Your task to perform on an android device: add a label to a message in the gmail app Image 0: 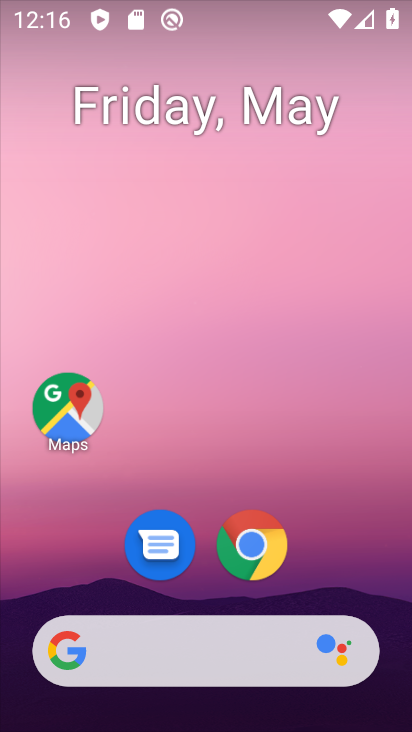
Step 0: drag from (346, 569) to (319, 99)
Your task to perform on an android device: add a label to a message in the gmail app Image 1: 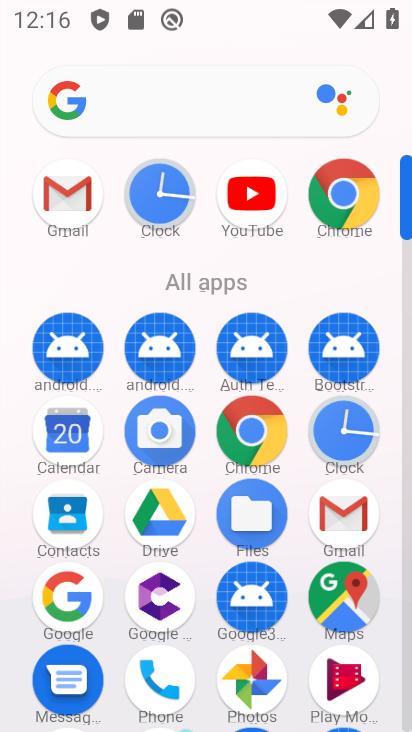
Step 1: click (64, 210)
Your task to perform on an android device: add a label to a message in the gmail app Image 2: 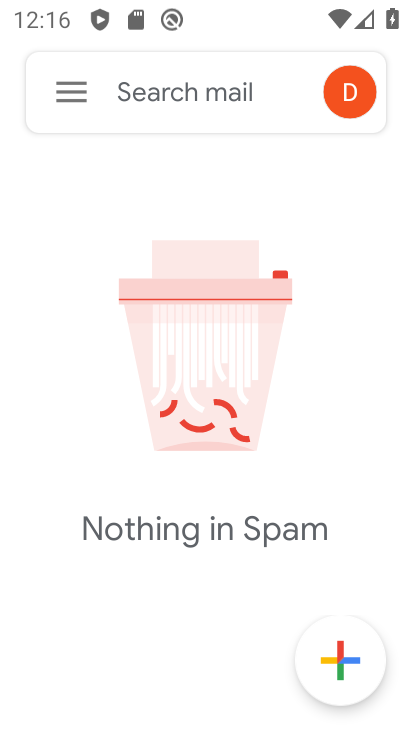
Step 2: click (43, 89)
Your task to perform on an android device: add a label to a message in the gmail app Image 3: 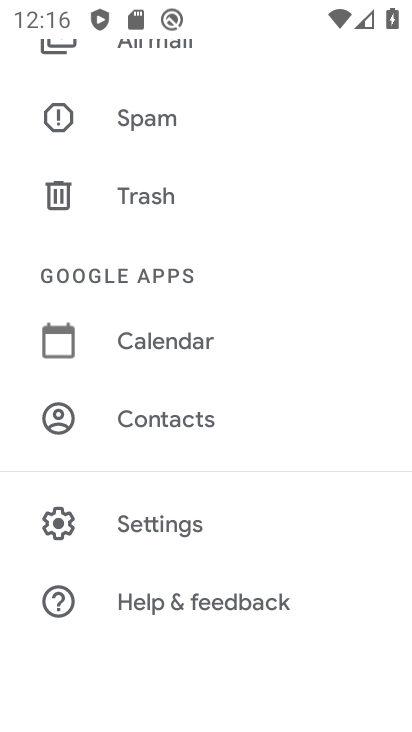
Step 3: click (199, 50)
Your task to perform on an android device: add a label to a message in the gmail app Image 4: 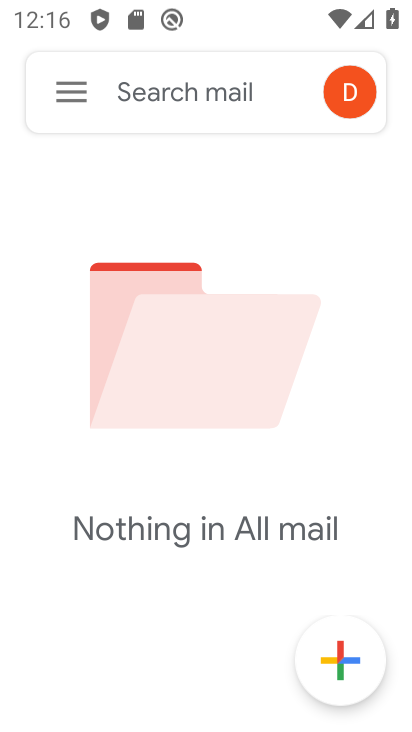
Step 4: click (55, 95)
Your task to perform on an android device: add a label to a message in the gmail app Image 5: 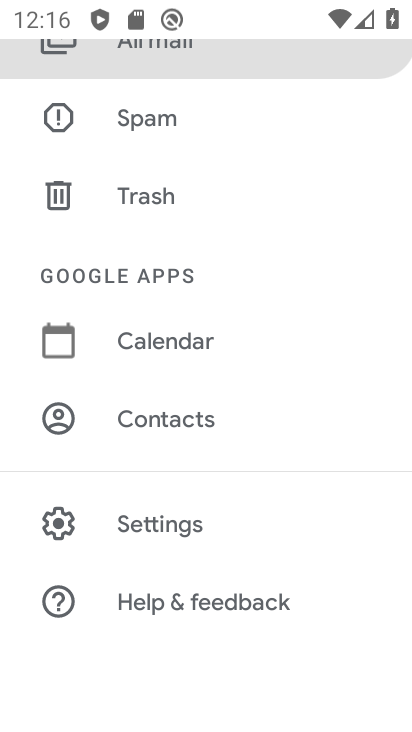
Step 5: drag from (205, 120) to (323, 526)
Your task to perform on an android device: add a label to a message in the gmail app Image 6: 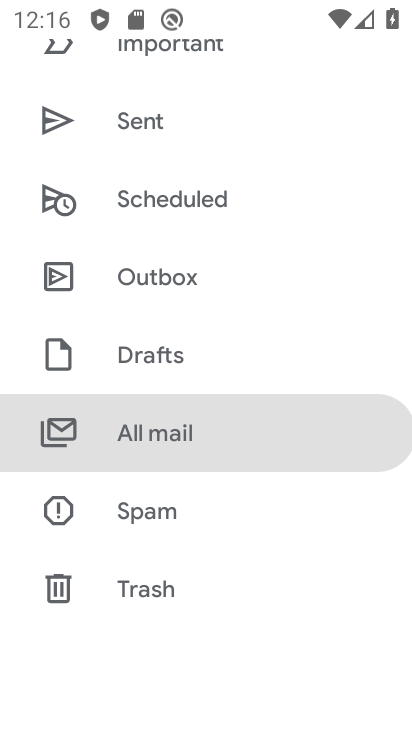
Step 6: drag from (226, 172) to (264, 622)
Your task to perform on an android device: add a label to a message in the gmail app Image 7: 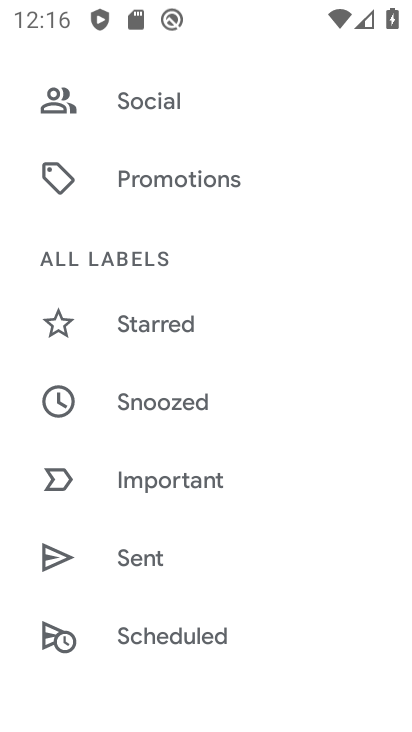
Step 7: drag from (225, 202) to (196, 713)
Your task to perform on an android device: add a label to a message in the gmail app Image 8: 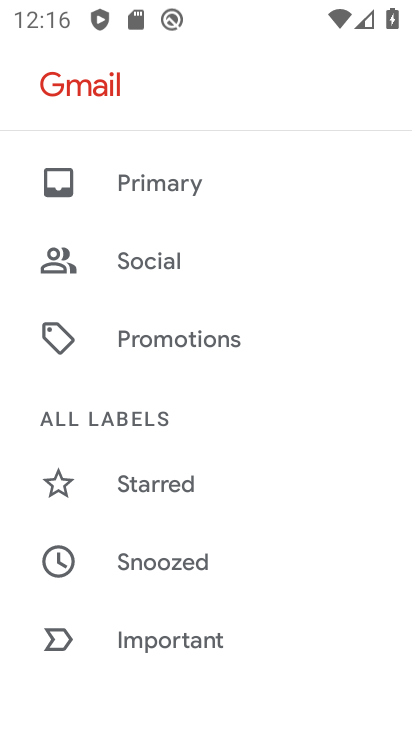
Step 8: click (192, 197)
Your task to perform on an android device: add a label to a message in the gmail app Image 9: 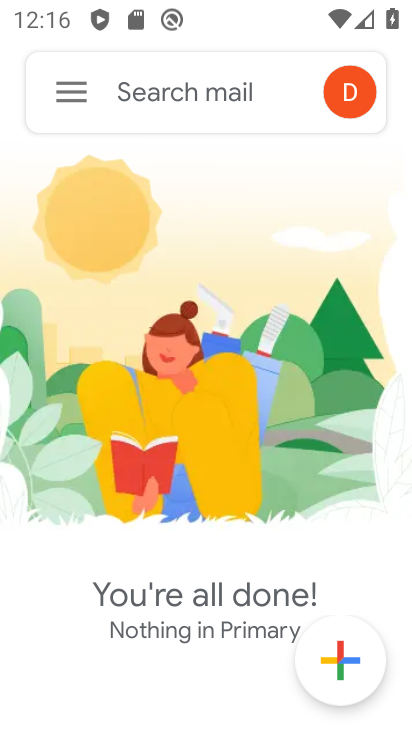
Step 9: task complete